Your task to perform on an android device: What's the weather today? Image 0: 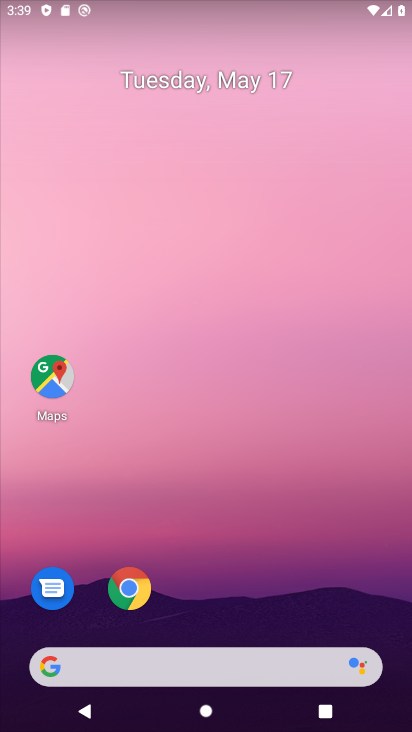
Step 0: drag from (280, 562) to (235, 153)
Your task to perform on an android device: What's the weather today? Image 1: 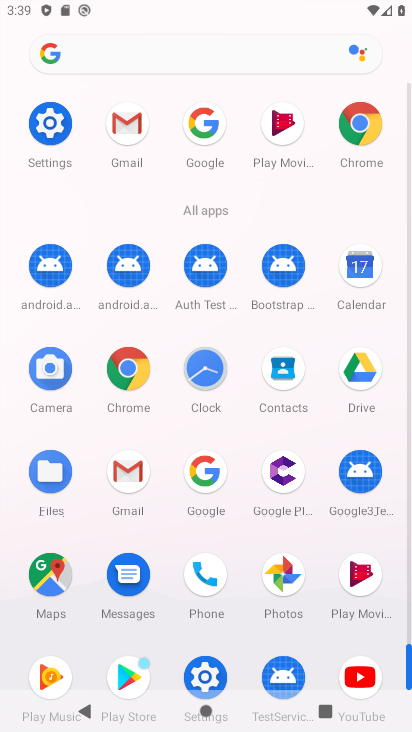
Step 1: click (202, 124)
Your task to perform on an android device: What's the weather today? Image 2: 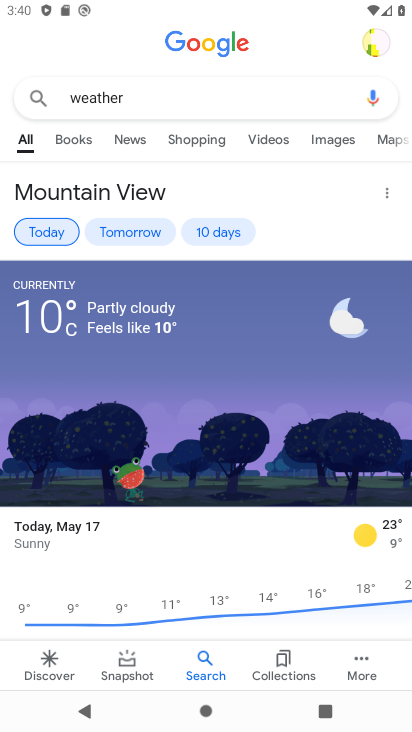
Step 2: task complete